Your task to perform on an android device: turn pop-ups on in chrome Image 0: 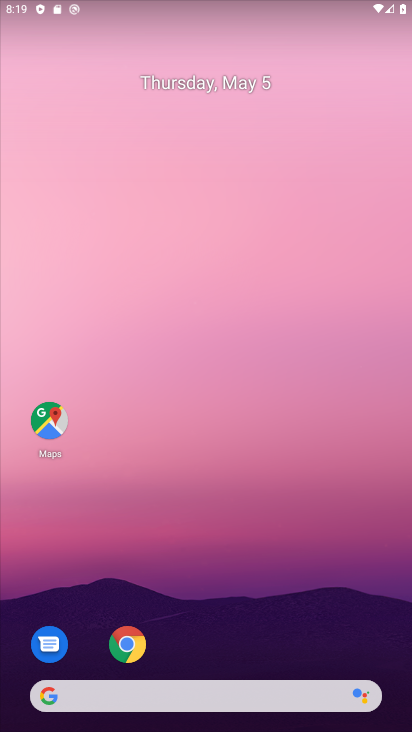
Step 0: drag from (329, 535) to (329, 124)
Your task to perform on an android device: turn pop-ups on in chrome Image 1: 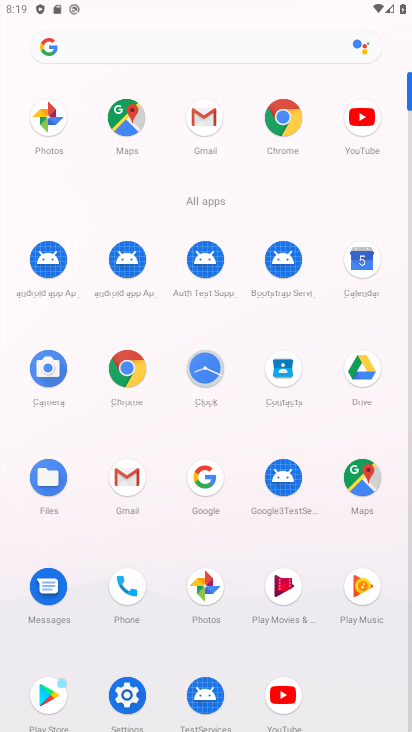
Step 1: click (275, 109)
Your task to perform on an android device: turn pop-ups on in chrome Image 2: 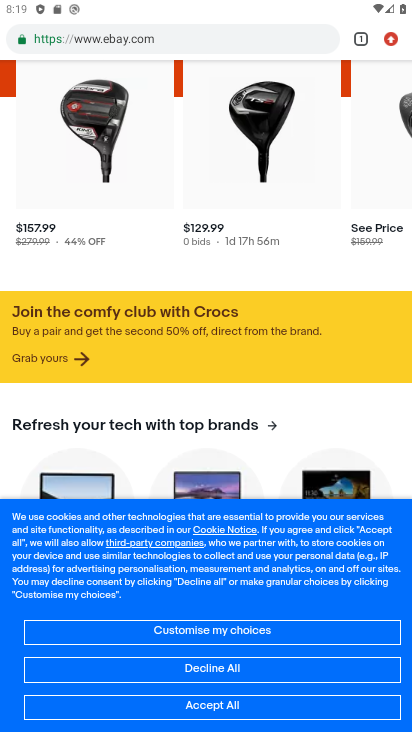
Step 2: drag from (354, 150) to (362, 509)
Your task to perform on an android device: turn pop-ups on in chrome Image 3: 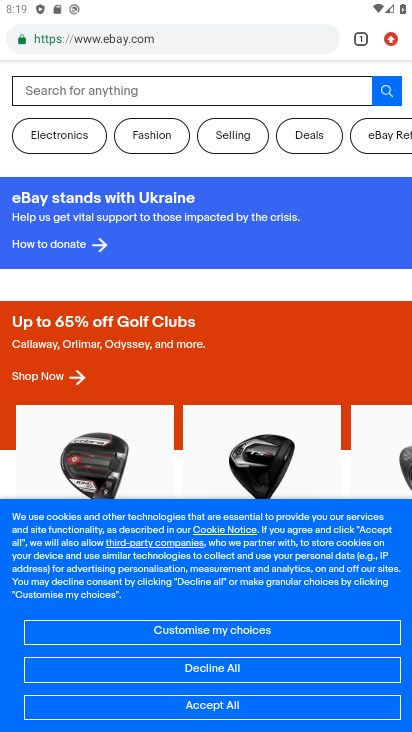
Step 3: drag from (366, 152) to (367, 513)
Your task to perform on an android device: turn pop-ups on in chrome Image 4: 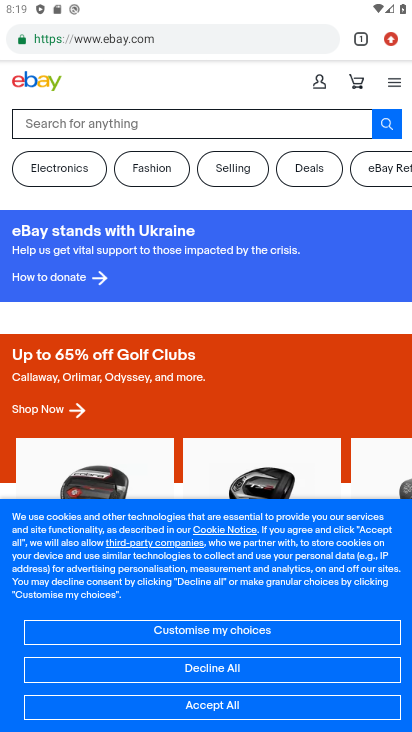
Step 4: click (381, 39)
Your task to perform on an android device: turn pop-ups on in chrome Image 5: 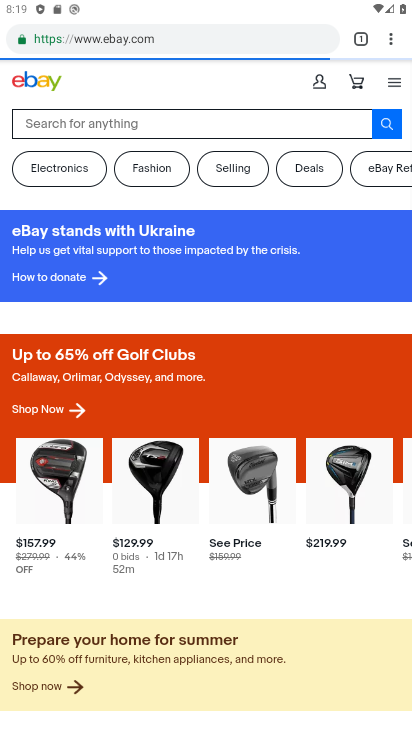
Step 5: drag from (395, 41) to (263, 501)
Your task to perform on an android device: turn pop-ups on in chrome Image 6: 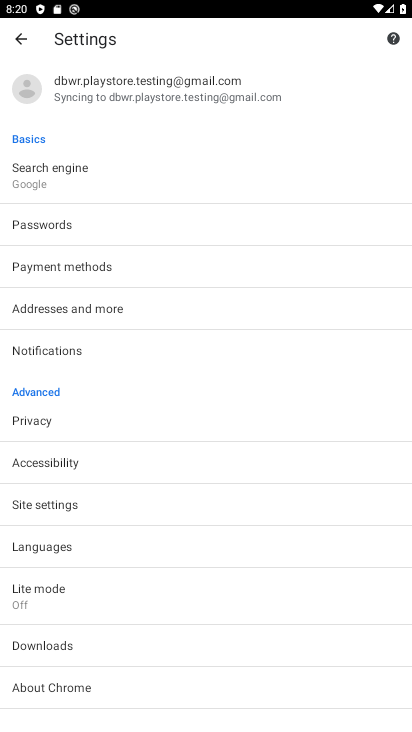
Step 6: drag from (122, 629) to (194, 269)
Your task to perform on an android device: turn pop-ups on in chrome Image 7: 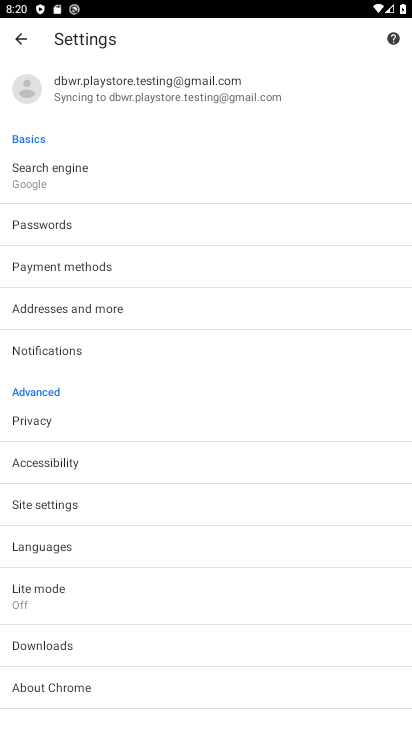
Step 7: drag from (127, 602) to (181, 313)
Your task to perform on an android device: turn pop-ups on in chrome Image 8: 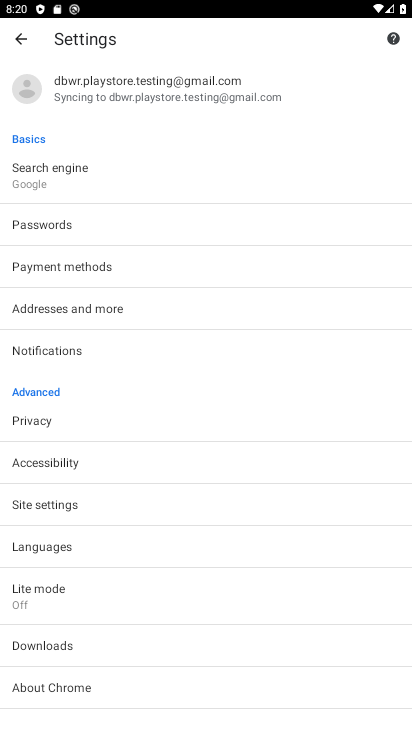
Step 8: drag from (65, 634) to (149, 346)
Your task to perform on an android device: turn pop-ups on in chrome Image 9: 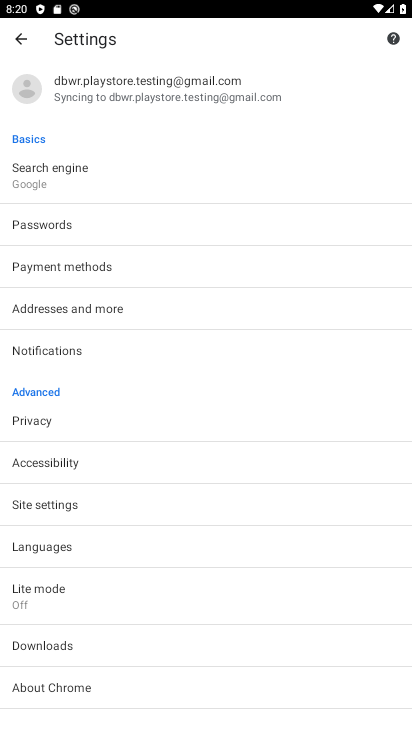
Step 9: drag from (172, 589) to (214, 273)
Your task to perform on an android device: turn pop-ups on in chrome Image 10: 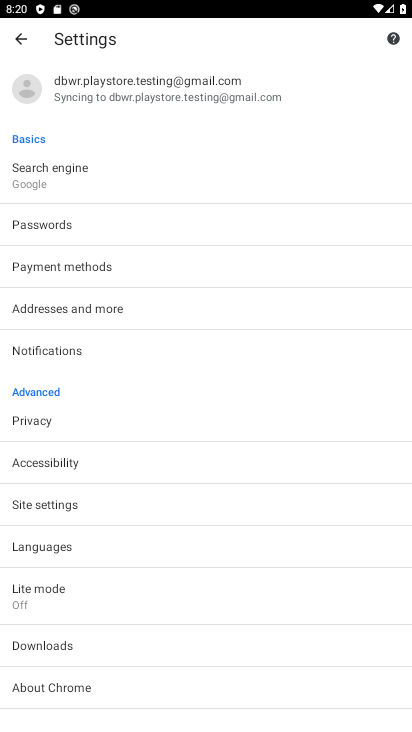
Step 10: drag from (100, 628) to (105, 284)
Your task to perform on an android device: turn pop-ups on in chrome Image 11: 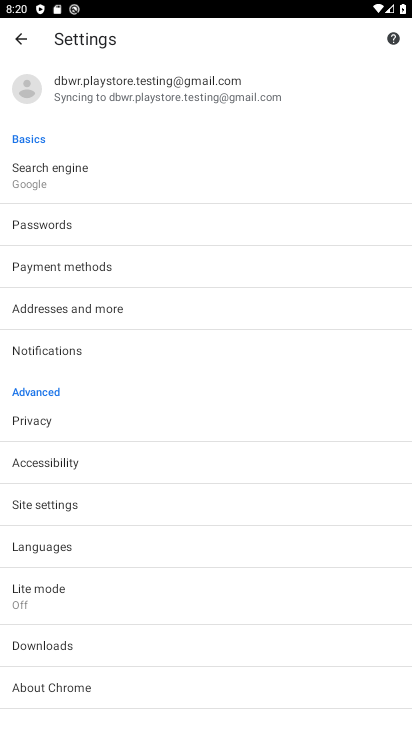
Step 11: click (45, 507)
Your task to perform on an android device: turn pop-ups on in chrome Image 12: 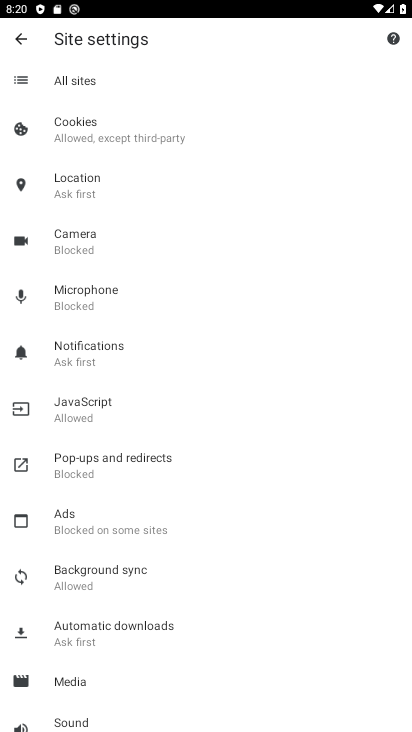
Step 12: click (92, 461)
Your task to perform on an android device: turn pop-ups on in chrome Image 13: 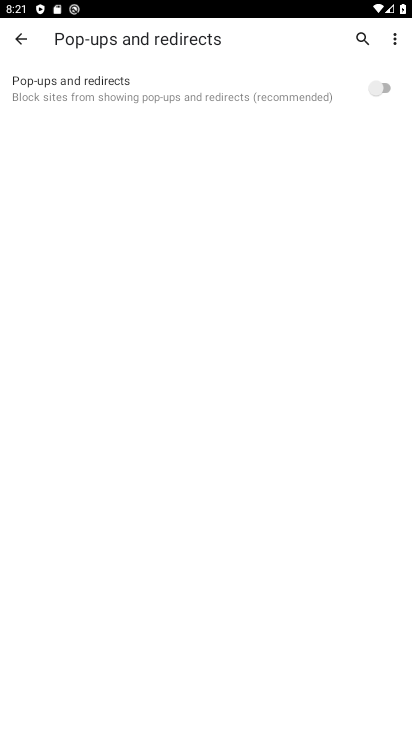
Step 13: click (378, 87)
Your task to perform on an android device: turn pop-ups on in chrome Image 14: 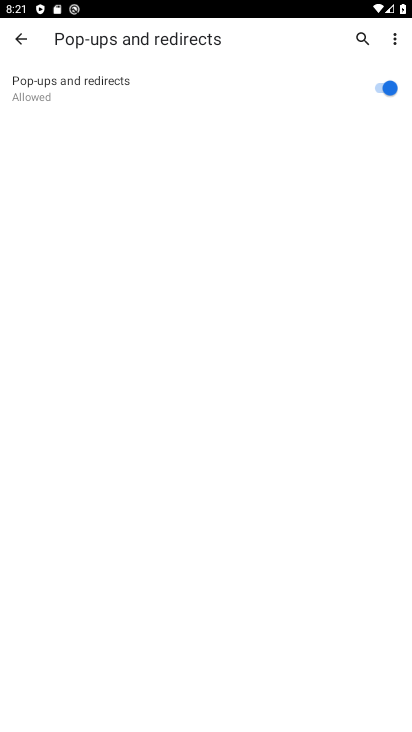
Step 14: task complete